Your task to perform on an android device: Go to wifi settings Image 0: 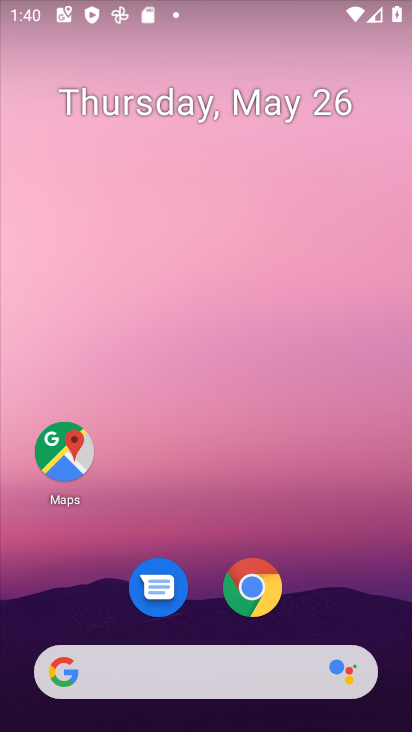
Step 0: drag from (355, 602) to (373, 109)
Your task to perform on an android device: Go to wifi settings Image 1: 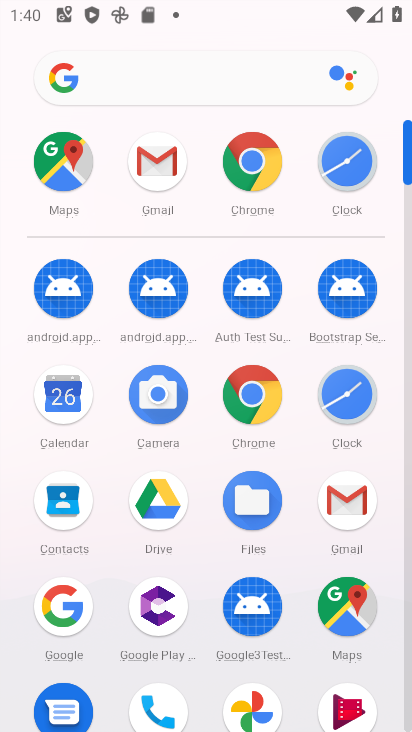
Step 1: drag from (207, 545) to (216, 304)
Your task to perform on an android device: Go to wifi settings Image 2: 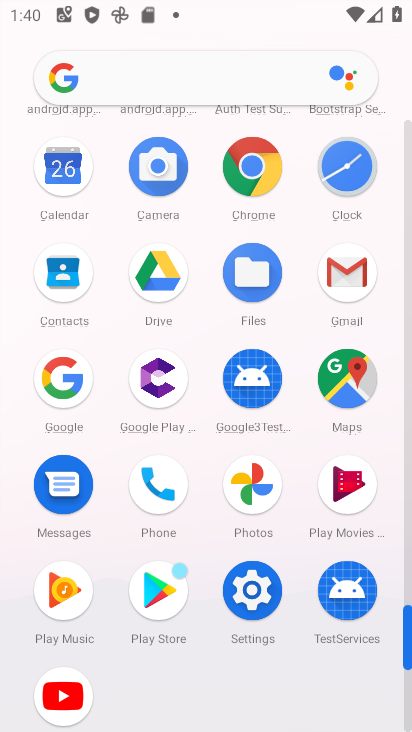
Step 2: drag from (198, 520) to (197, 378)
Your task to perform on an android device: Go to wifi settings Image 3: 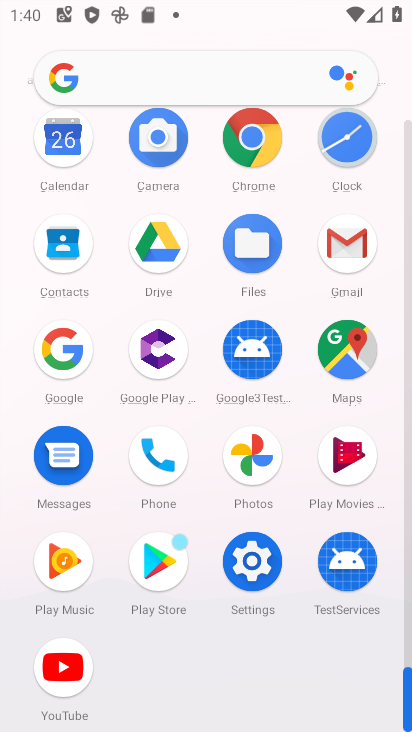
Step 3: click (257, 581)
Your task to perform on an android device: Go to wifi settings Image 4: 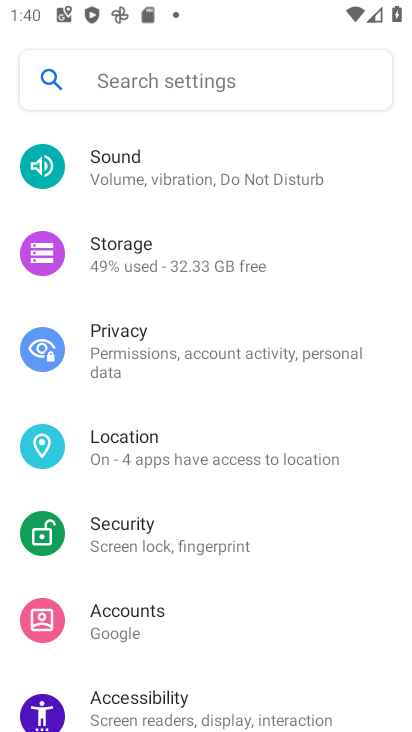
Step 4: drag from (341, 564) to (352, 422)
Your task to perform on an android device: Go to wifi settings Image 5: 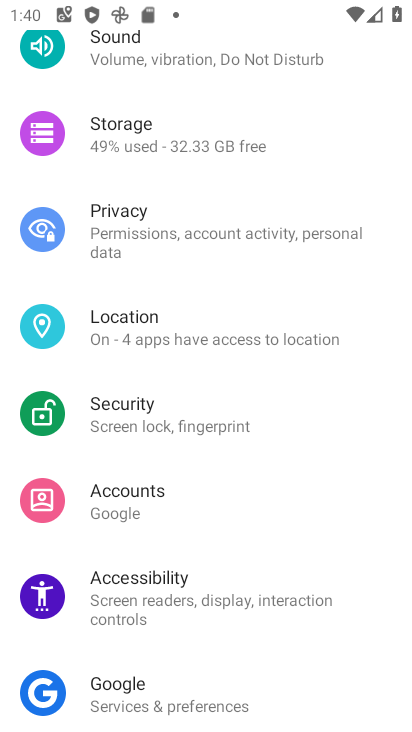
Step 5: drag from (351, 629) to (358, 418)
Your task to perform on an android device: Go to wifi settings Image 6: 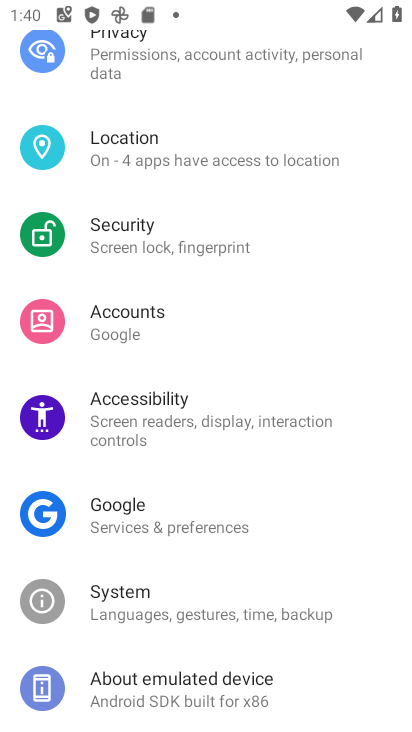
Step 6: drag from (357, 617) to (356, 444)
Your task to perform on an android device: Go to wifi settings Image 7: 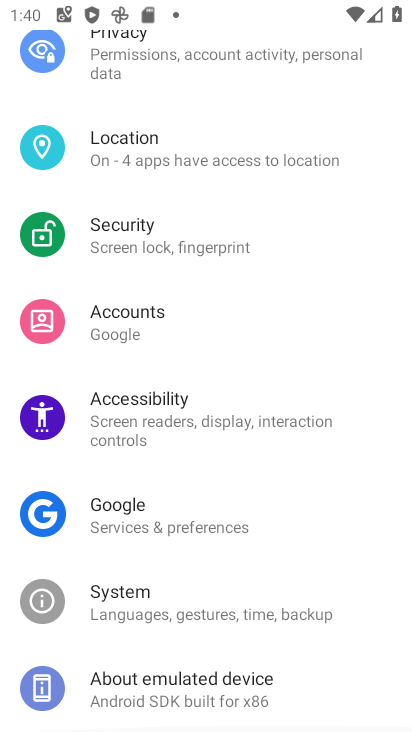
Step 7: drag from (347, 357) to (346, 453)
Your task to perform on an android device: Go to wifi settings Image 8: 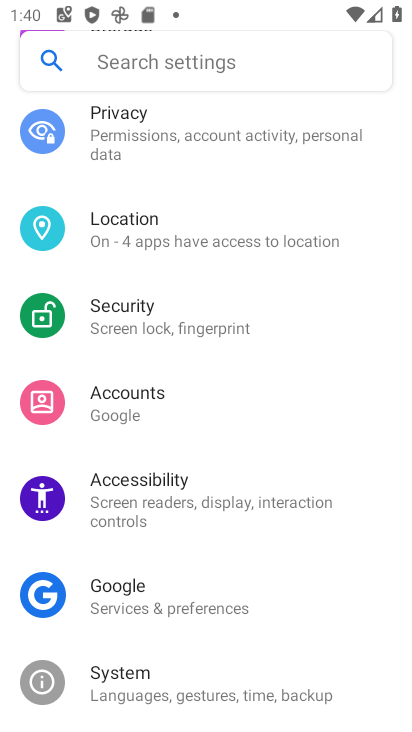
Step 8: drag from (362, 322) to (357, 424)
Your task to perform on an android device: Go to wifi settings Image 9: 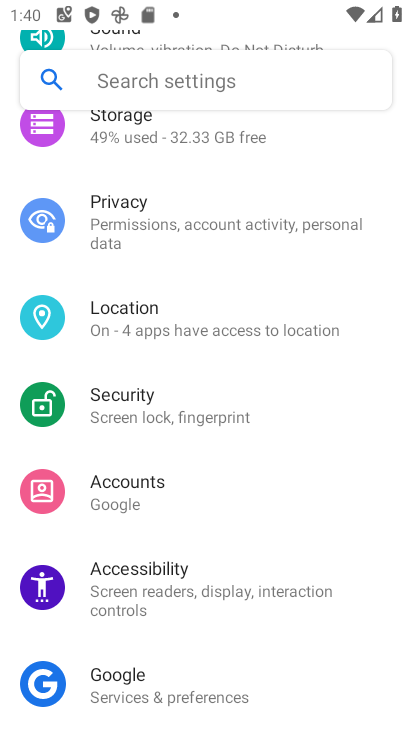
Step 9: drag from (351, 273) to (349, 376)
Your task to perform on an android device: Go to wifi settings Image 10: 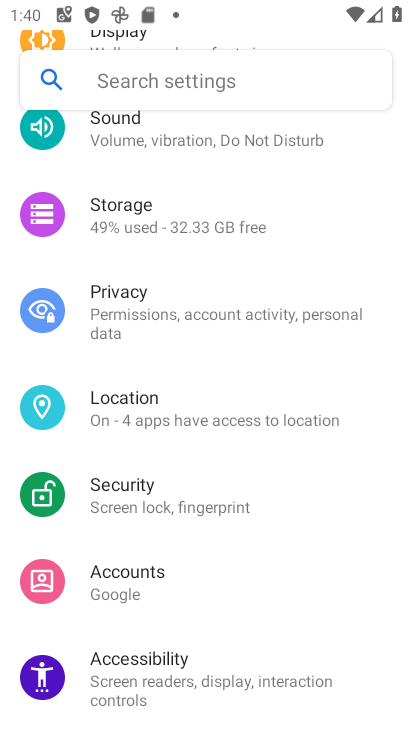
Step 10: drag from (370, 256) to (364, 349)
Your task to perform on an android device: Go to wifi settings Image 11: 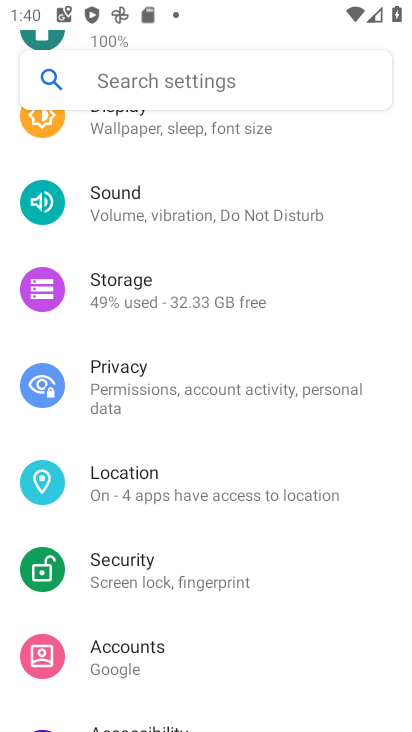
Step 11: drag from (357, 279) to (356, 378)
Your task to perform on an android device: Go to wifi settings Image 12: 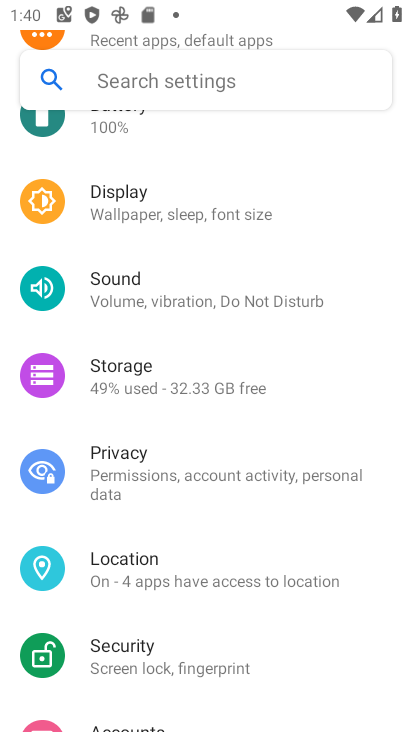
Step 12: drag from (351, 267) to (353, 367)
Your task to perform on an android device: Go to wifi settings Image 13: 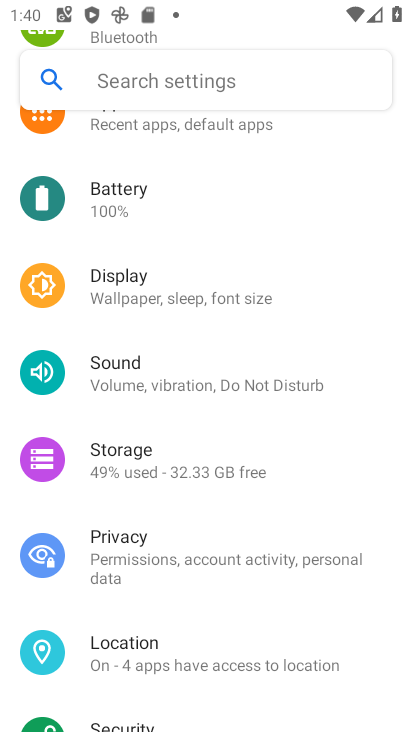
Step 13: drag from (345, 289) to (339, 410)
Your task to perform on an android device: Go to wifi settings Image 14: 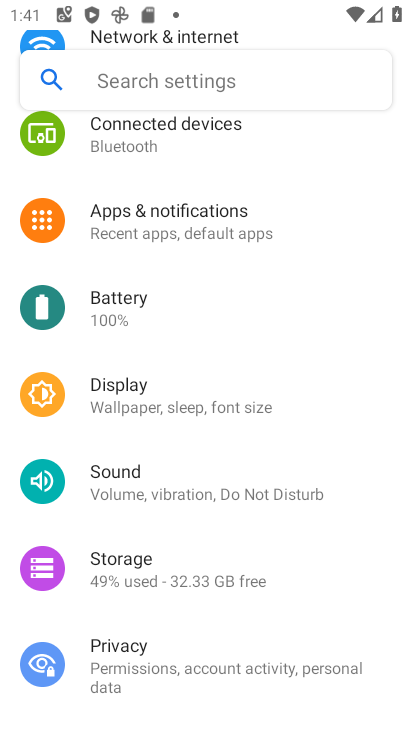
Step 14: drag from (329, 281) to (323, 415)
Your task to perform on an android device: Go to wifi settings Image 15: 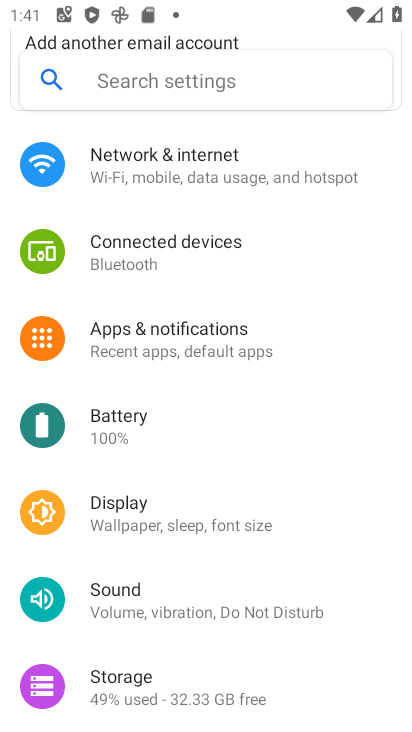
Step 15: drag from (340, 274) to (352, 416)
Your task to perform on an android device: Go to wifi settings Image 16: 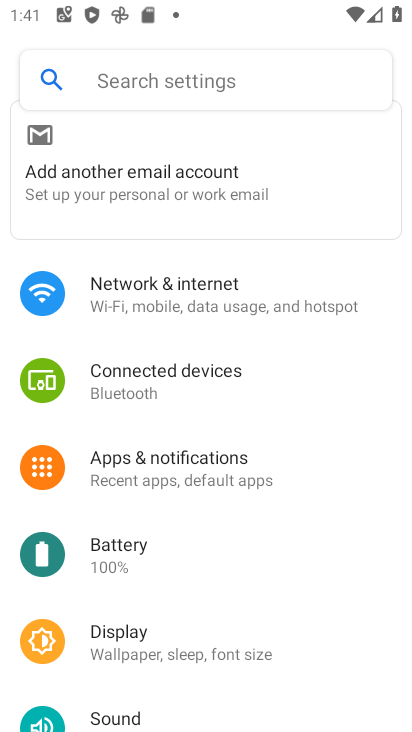
Step 16: drag from (370, 204) to (359, 399)
Your task to perform on an android device: Go to wifi settings Image 17: 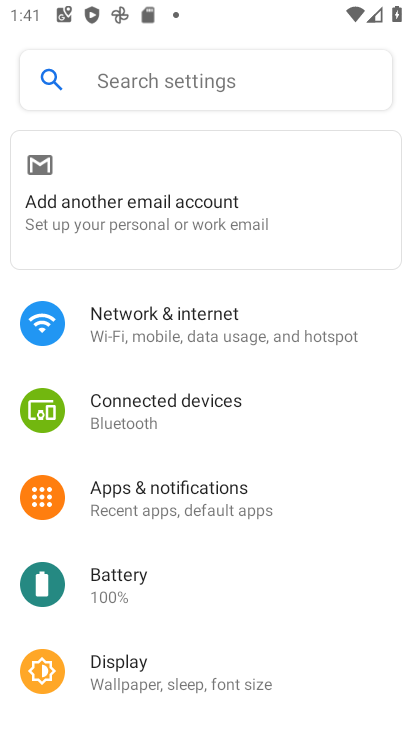
Step 17: click (221, 336)
Your task to perform on an android device: Go to wifi settings Image 18: 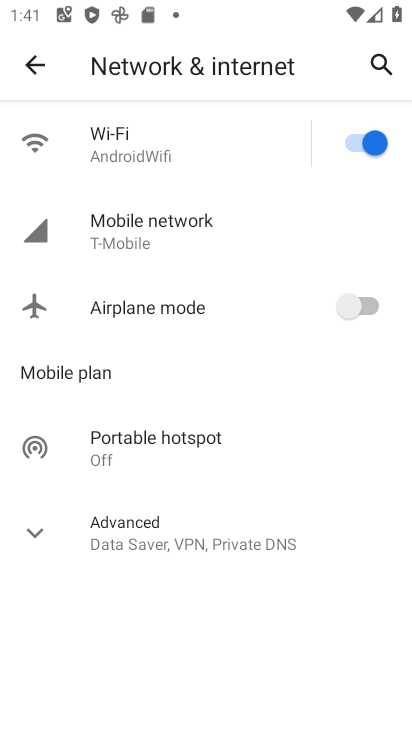
Step 18: click (164, 147)
Your task to perform on an android device: Go to wifi settings Image 19: 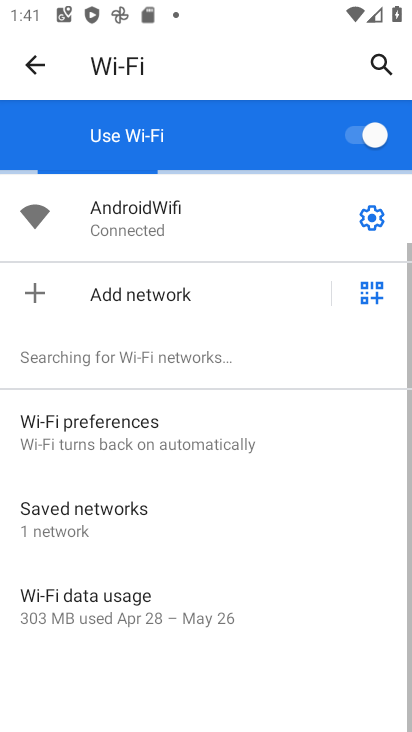
Step 19: click (136, 143)
Your task to perform on an android device: Go to wifi settings Image 20: 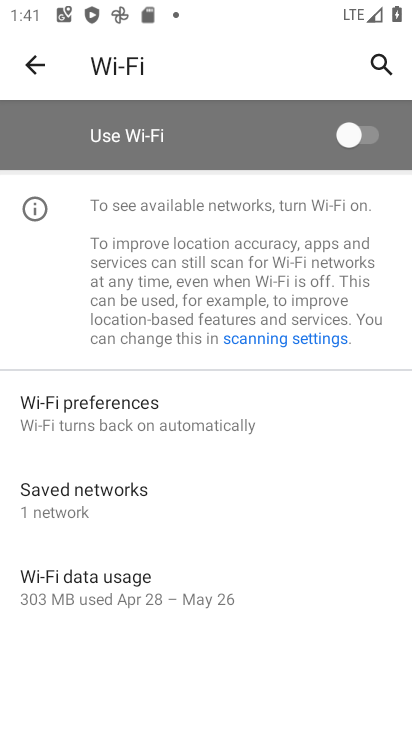
Step 20: task complete